Your task to perform on an android device: What is the recent news? Image 0: 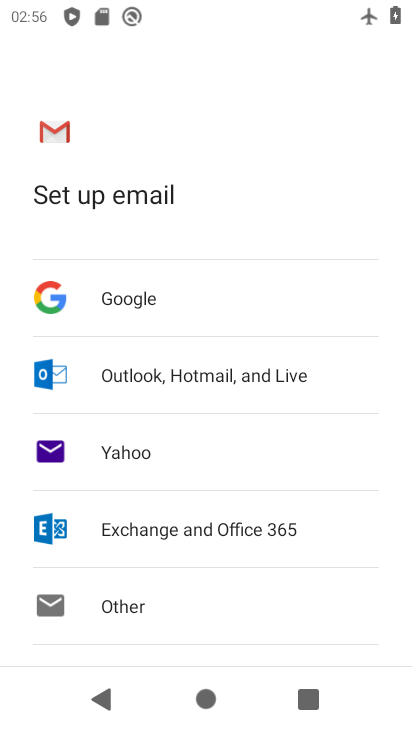
Step 0: press home button
Your task to perform on an android device: What is the recent news? Image 1: 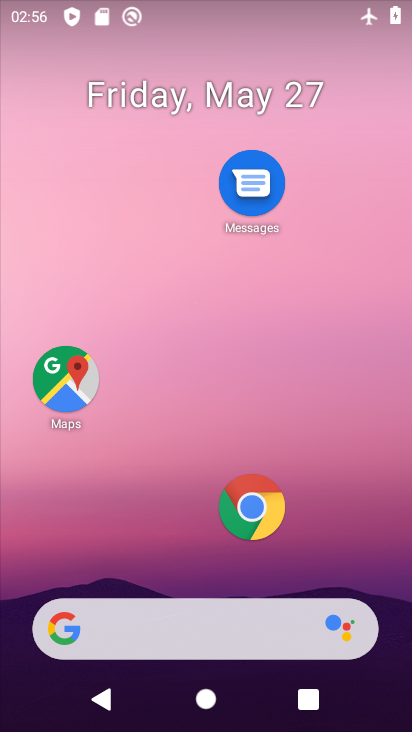
Step 1: drag from (195, 573) to (190, 135)
Your task to perform on an android device: What is the recent news? Image 2: 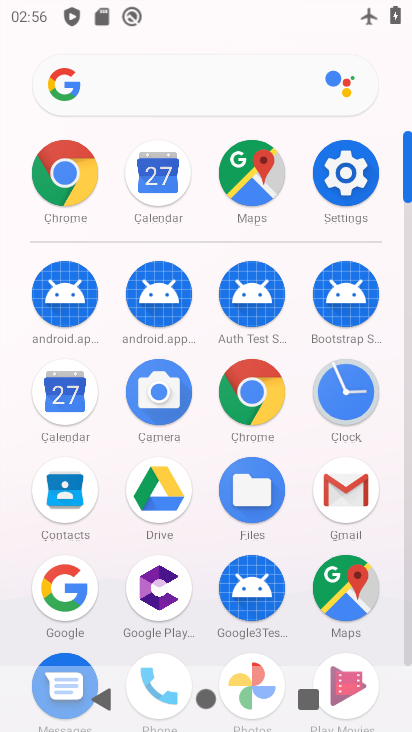
Step 2: click (157, 93)
Your task to perform on an android device: What is the recent news? Image 3: 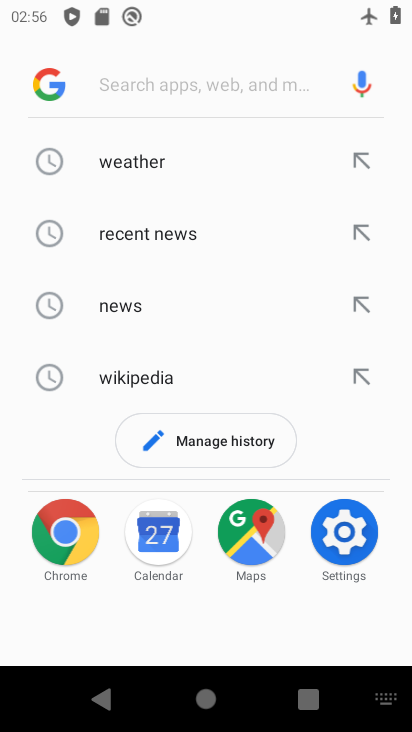
Step 3: click (140, 243)
Your task to perform on an android device: What is the recent news? Image 4: 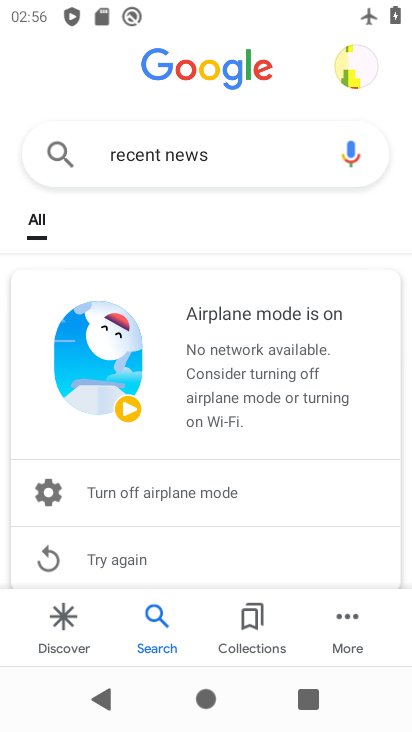
Step 4: task complete